Your task to perform on an android device: delete a single message in the gmail app Image 0: 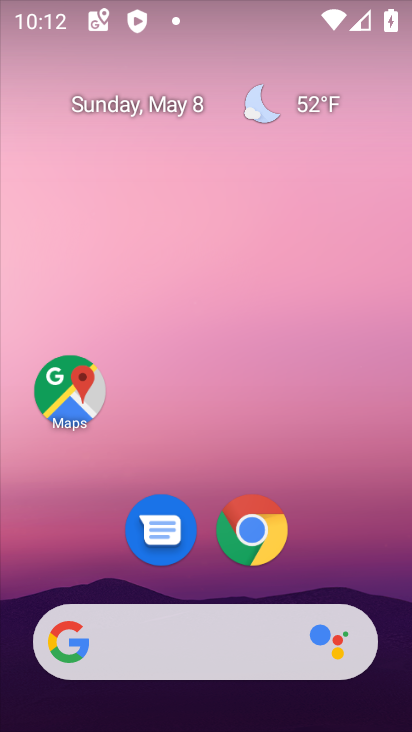
Step 0: drag from (375, 571) to (405, 133)
Your task to perform on an android device: delete a single message in the gmail app Image 1: 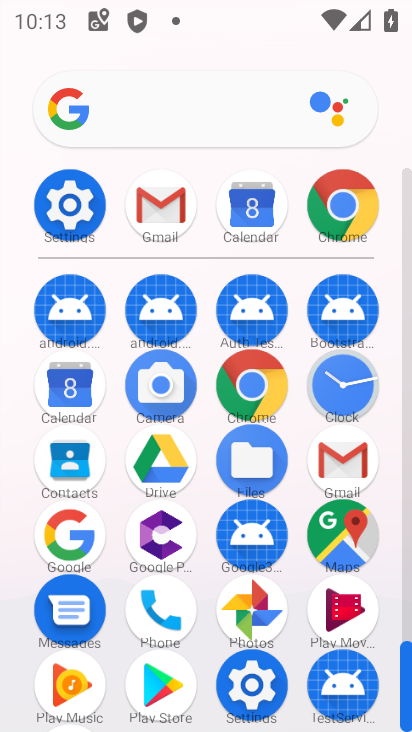
Step 1: click (327, 453)
Your task to perform on an android device: delete a single message in the gmail app Image 2: 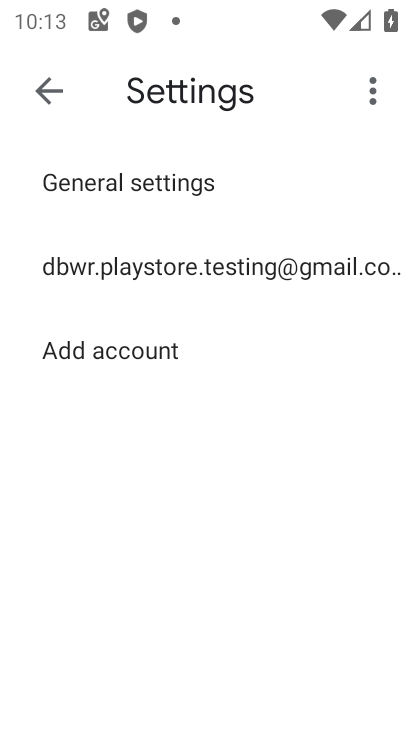
Step 2: click (43, 99)
Your task to perform on an android device: delete a single message in the gmail app Image 3: 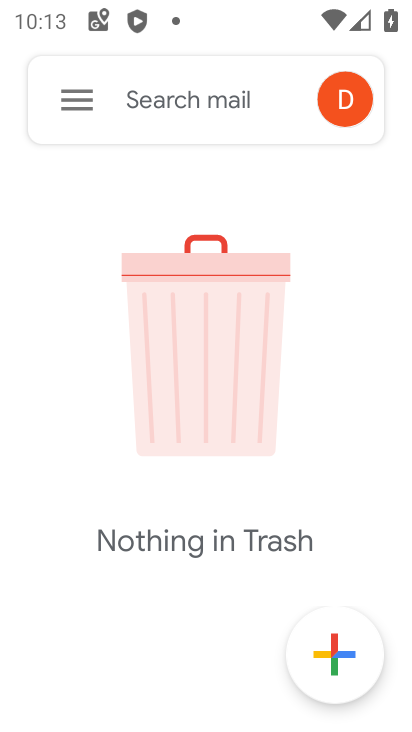
Step 3: click (72, 108)
Your task to perform on an android device: delete a single message in the gmail app Image 4: 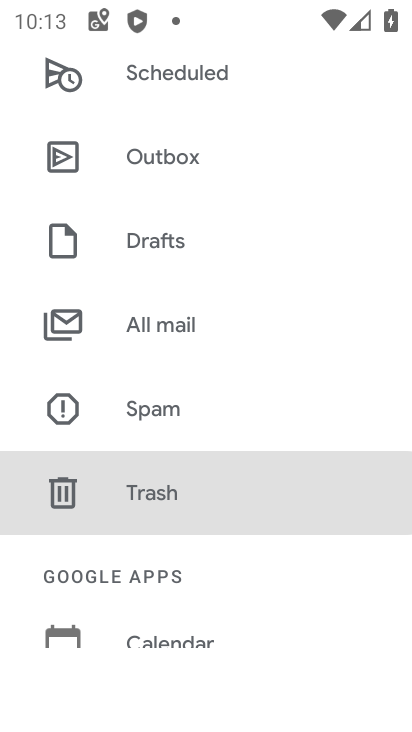
Step 4: drag from (304, 171) to (253, 527)
Your task to perform on an android device: delete a single message in the gmail app Image 5: 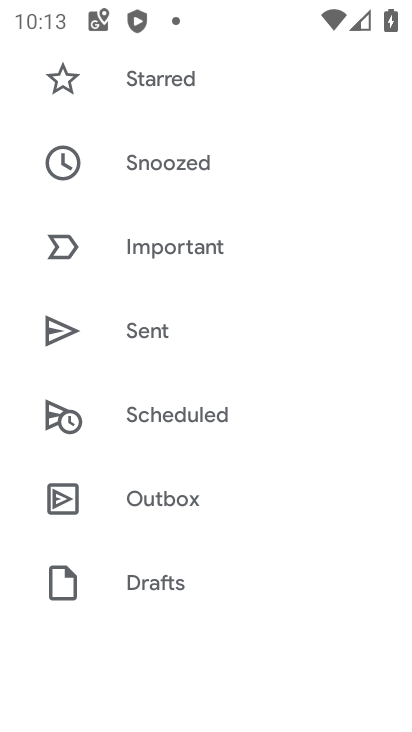
Step 5: drag from (252, 208) to (255, 528)
Your task to perform on an android device: delete a single message in the gmail app Image 6: 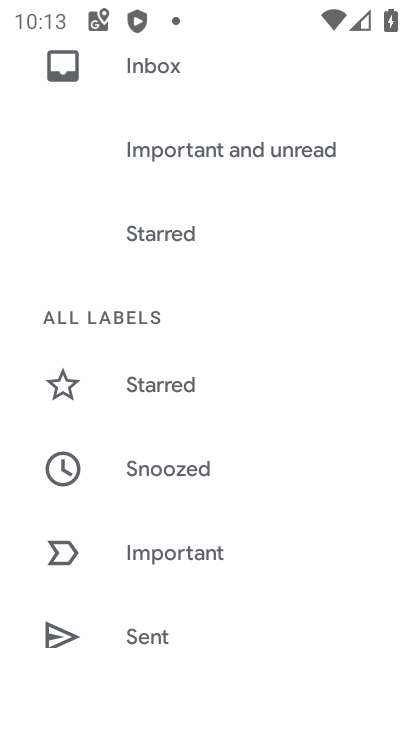
Step 6: drag from (219, 215) to (233, 534)
Your task to perform on an android device: delete a single message in the gmail app Image 7: 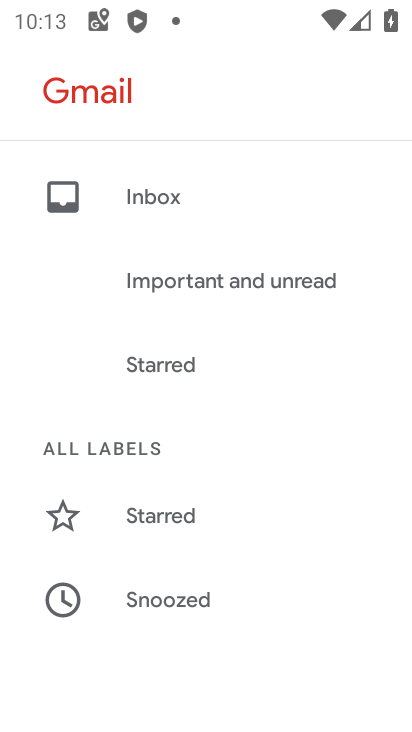
Step 7: click (210, 202)
Your task to perform on an android device: delete a single message in the gmail app Image 8: 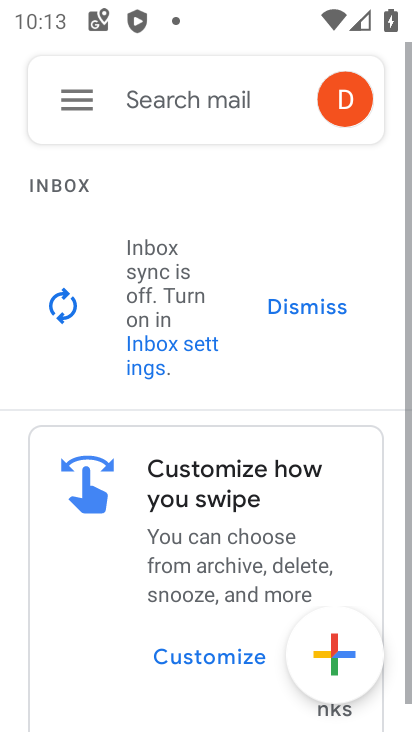
Step 8: task complete